Your task to perform on an android device: What's the top post on reddit? Image 0: 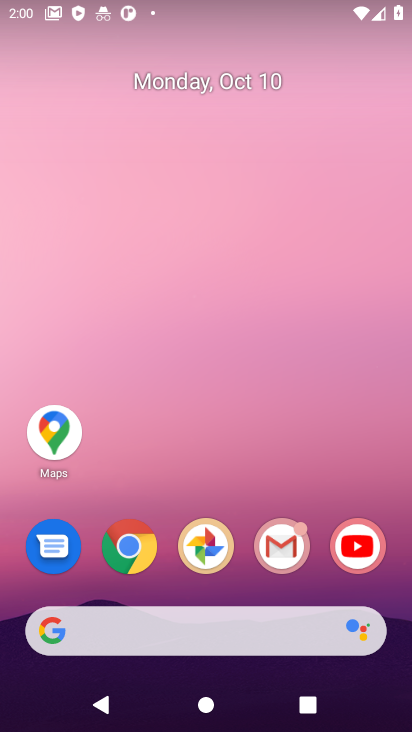
Step 0: click (138, 555)
Your task to perform on an android device: What's the top post on reddit? Image 1: 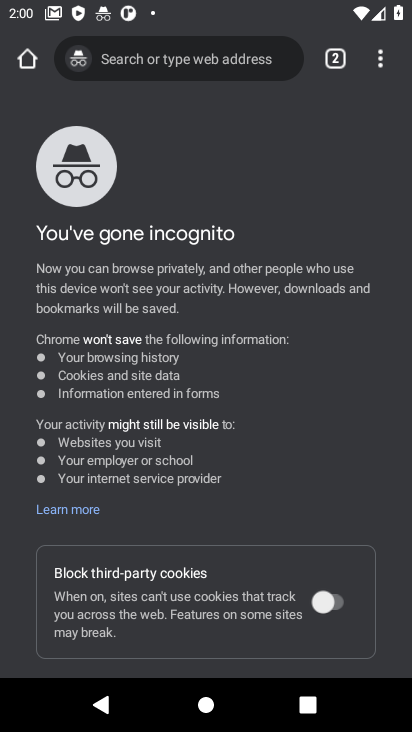
Step 1: click (218, 47)
Your task to perform on an android device: What's the top post on reddit? Image 2: 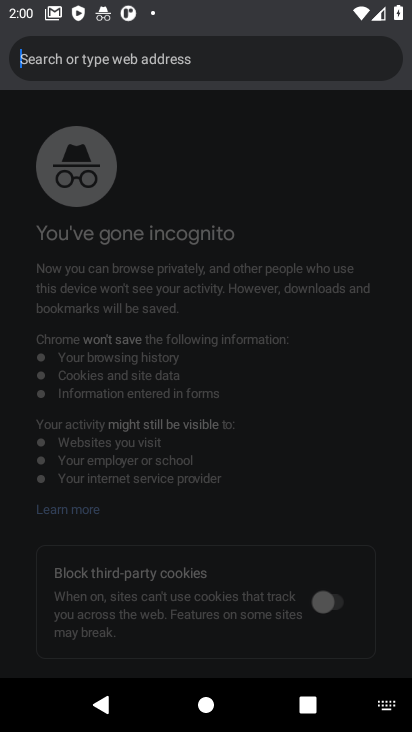
Step 2: type "What's the top post on reddit?"
Your task to perform on an android device: What's the top post on reddit? Image 3: 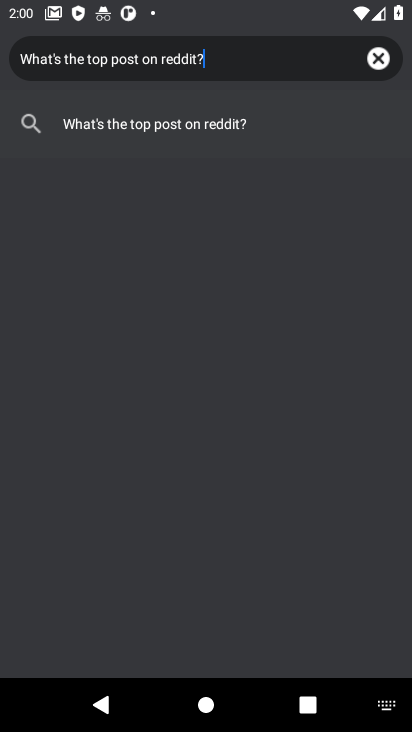
Step 3: click (259, 128)
Your task to perform on an android device: What's the top post on reddit? Image 4: 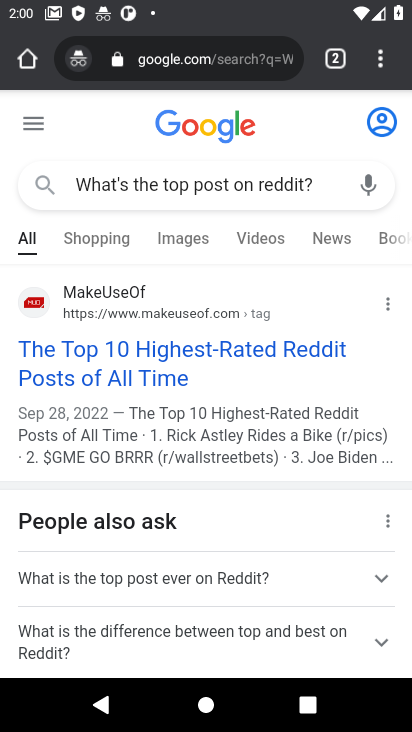
Step 4: click (181, 343)
Your task to perform on an android device: What's the top post on reddit? Image 5: 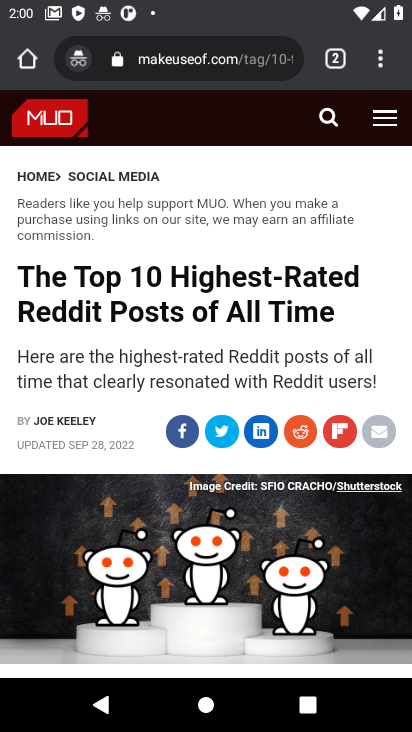
Step 5: drag from (301, 579) to (333, 256)
Your task to perform on an android device: What's the top post on reddit? Image 6: 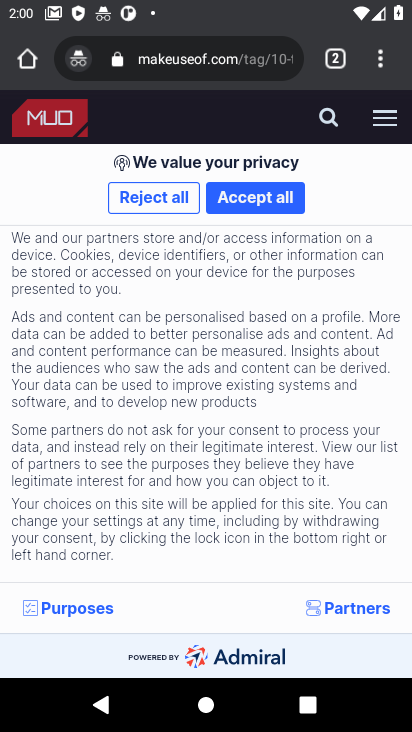
Step 6: click (229, 193)
Your task to perform on an android device: What's the top post on reddit? Image 7: 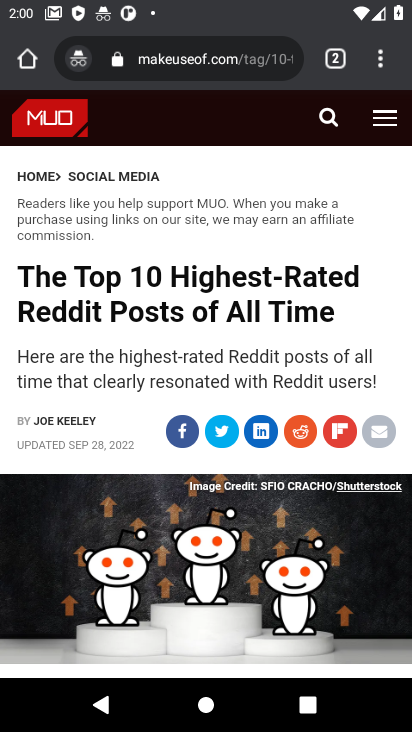
Step 7: task complete